Your task to perform on an android device: Open the stopwatch Image 0: 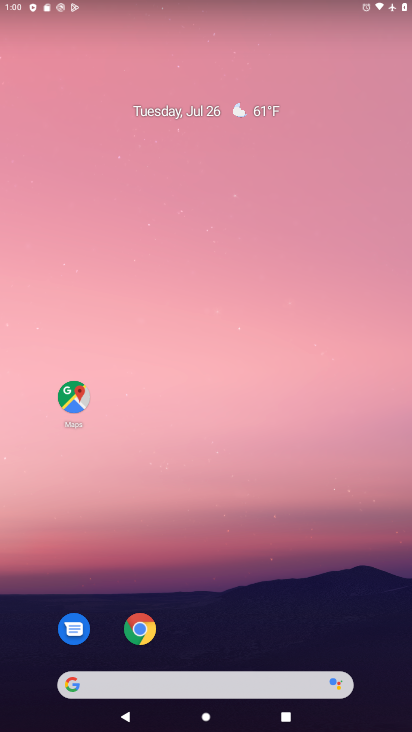
Step 0: drag from (254, 678) to (173, 189)
Your task to perform on an android device: Open the stopwatch Image 1: 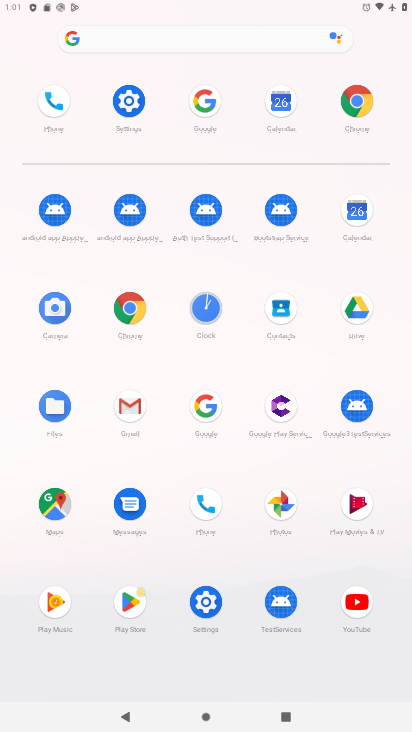
Step 1: click (194, 325)
Your task to perform on an android device: Open the stopwatch Image 2: 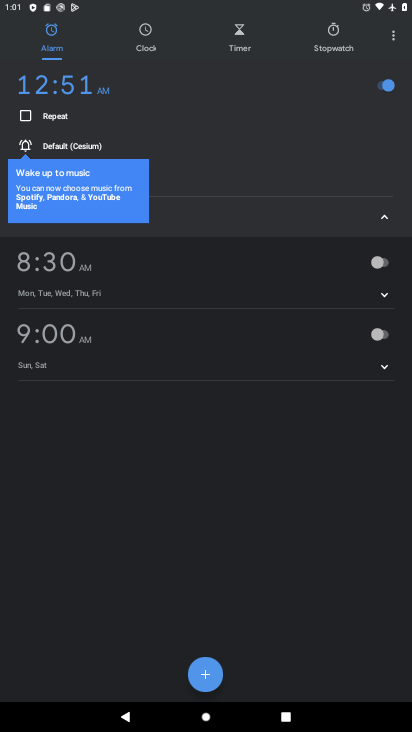
Step 2: click (331, 35)
Your task to perform on an android device: Open the stopwatch Image 3: 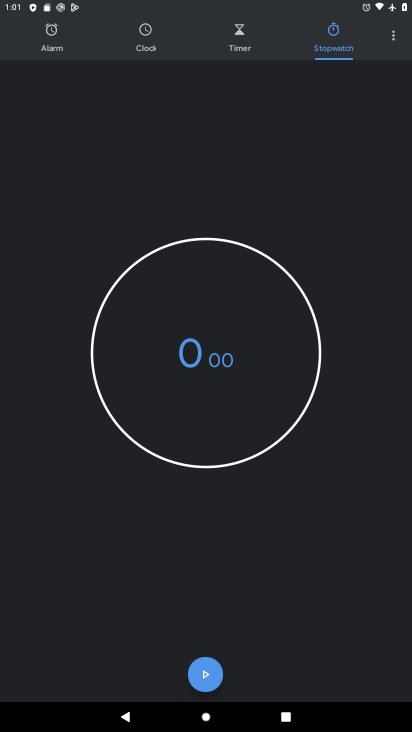
Step 3: task complete